Your task to perform on an android device: Open calendar and show me the fourth week of next month Image 0: 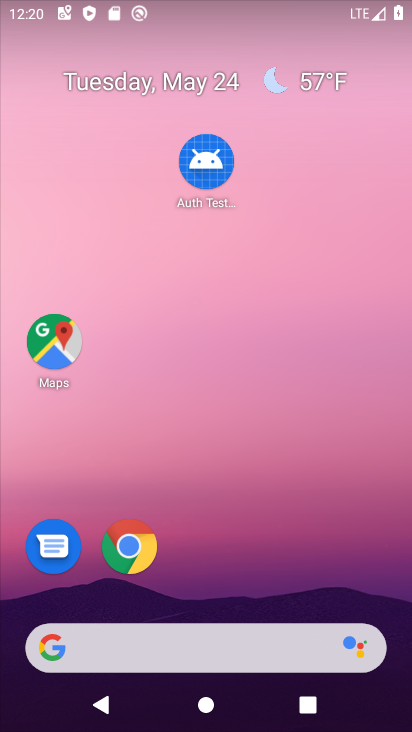
Step 0: drag from (207, 592) to (243, 67)
Your task to perform on an android device: Open calendar and show me the fourth week of next month Image 1: 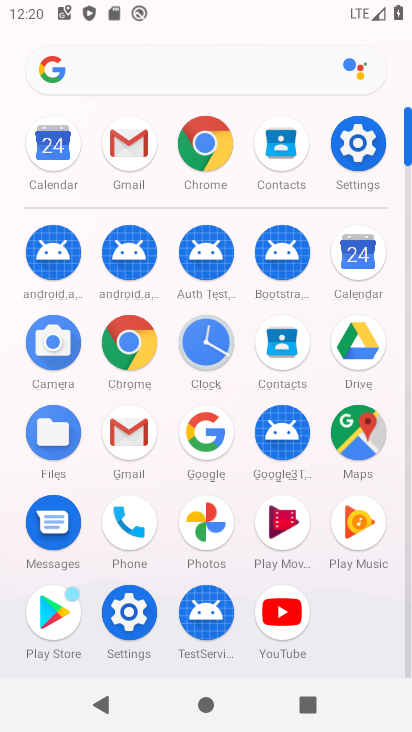
Step 1: click (356, 258)
Your task to perform on an android device: Open calendar and show me the fourth week of next month Image 2: 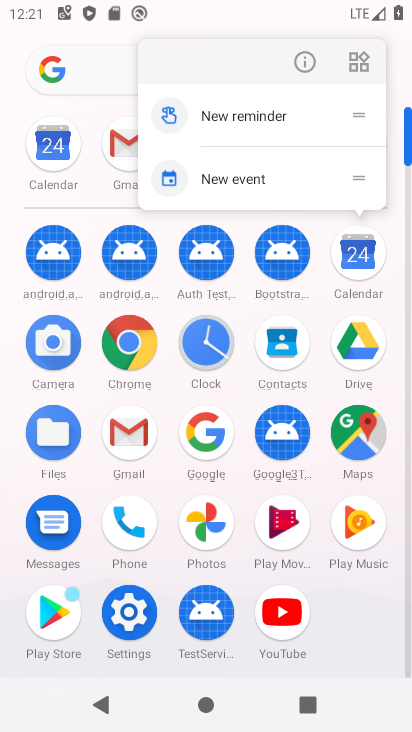
Step 2: click (307, 50)
Your task to perform on an android device: Open calendar and show me the fourth week of next month Image 3: 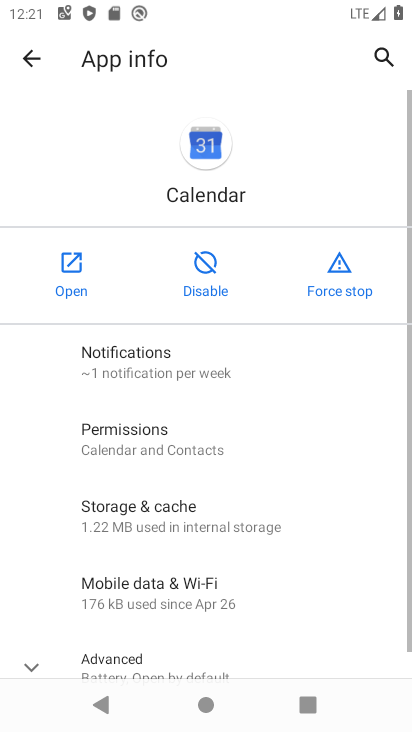
Step 3: click (40, 264)
Your task to perform on an android device: Open calendar and show me the fourth week of next month Image 4: 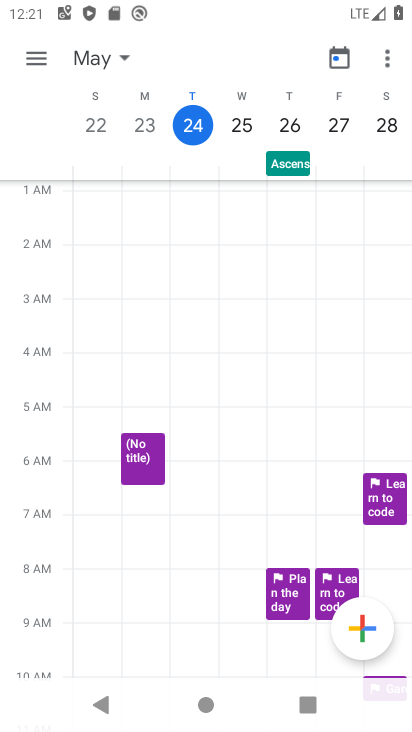
Step 4: click (119, 52)
Your task to perform on an android device: Open calendar and show me the fourth week of next month Image 5: 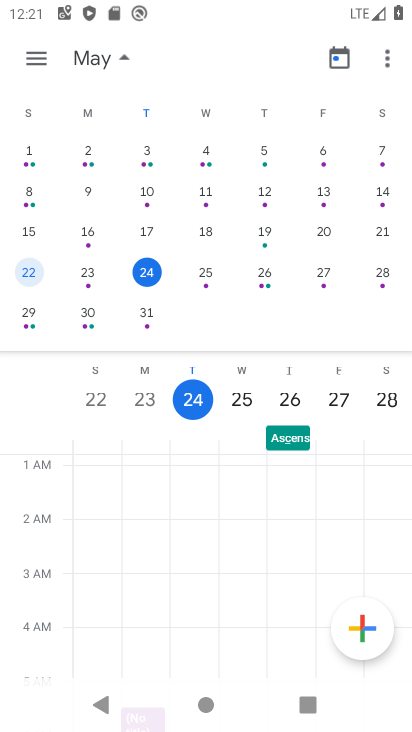
Step 5: drag from (382, 252) to (29, 189)
Your task to perform on an android device: Open calendar and show me the fourth week of next month Image 6: 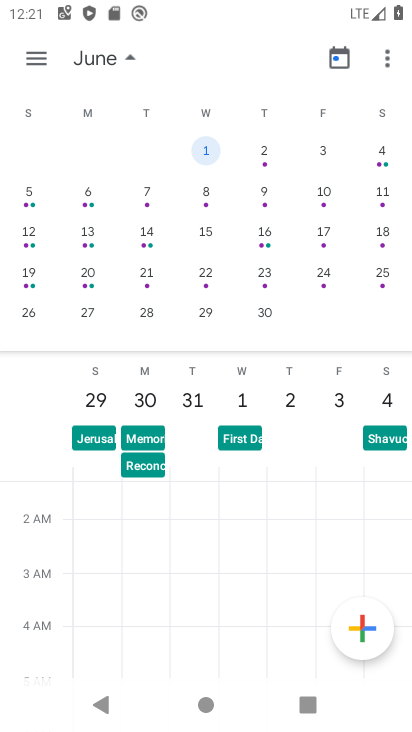
Step 6: click (213, 270)
Your task to perform on an android device: Open calendar and show me the fourth week of next month Image 7: 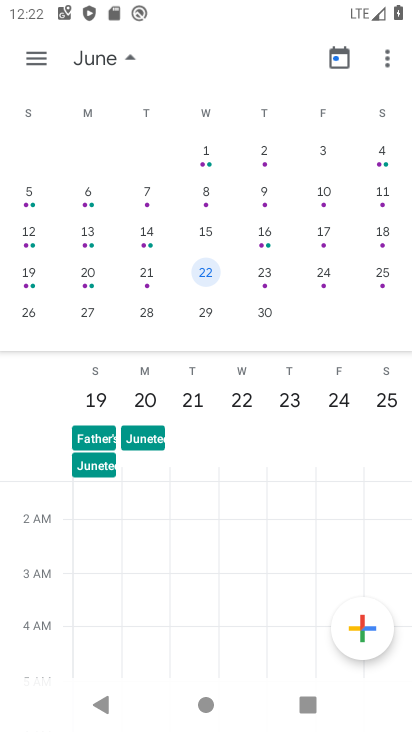
Step 7: task complete